Your task to perform on an android device: open sync settings in chrome Image 0: 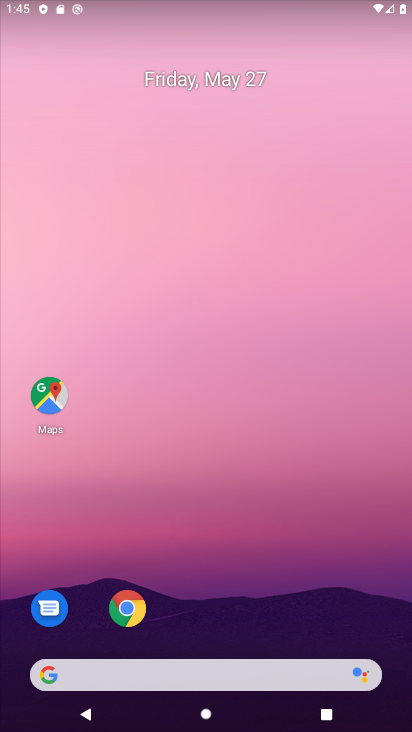
Step 0: click (129, 608)
Your task to perform on an android device: open sync settings in chrome Image 1: 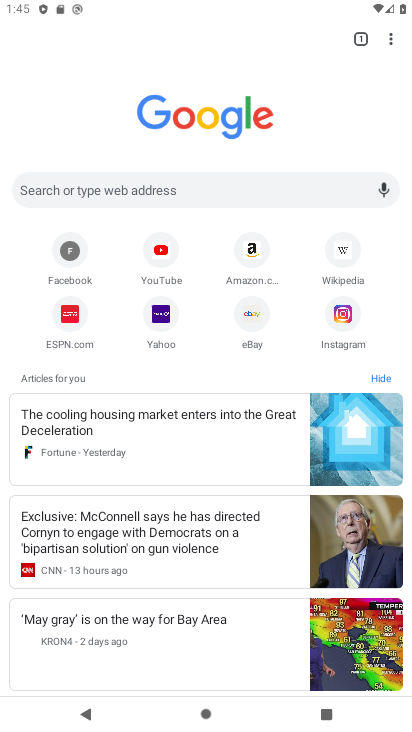
Step 1: click (387, 37)
Your task to perform on an android device: open sync settings in chrome Image 2: 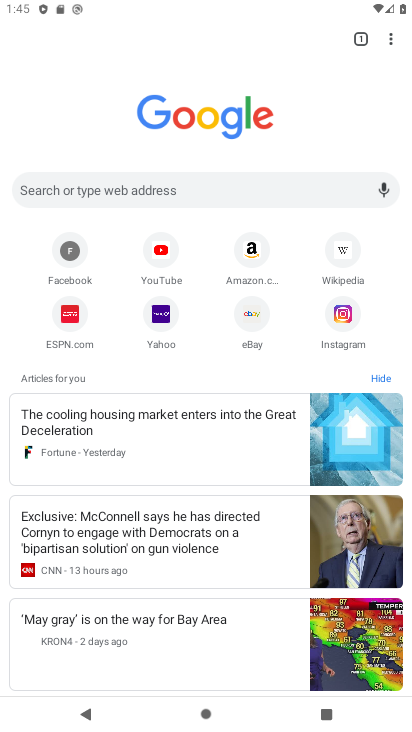
Step 2: drag from (387, 39) to (252, 333)
Your task to perform on an android device: open sync settings in chrome Image 3: 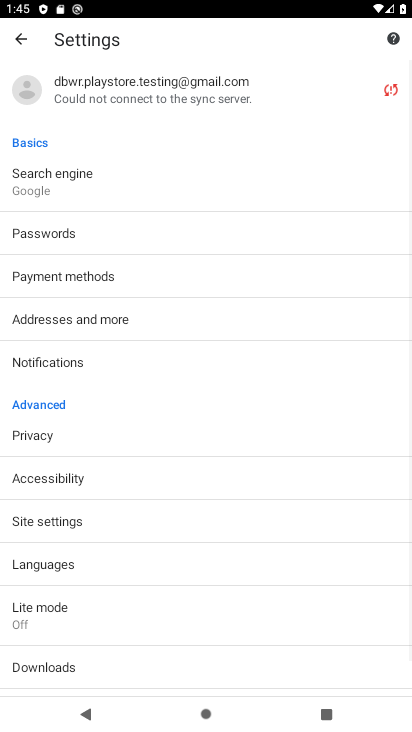
Step 3: click (123, 87)
Your task to perform on an android device: open sync settings in chrome Image 4: 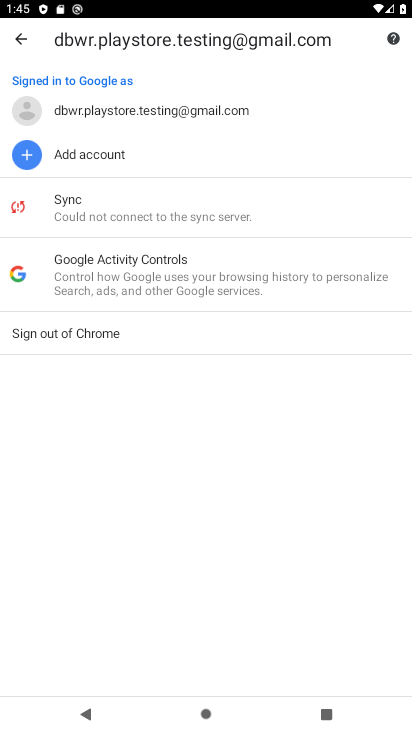
Step 4: click (142, 216)
Your task to perform on an android device: open sync settings in chrome Image 5: 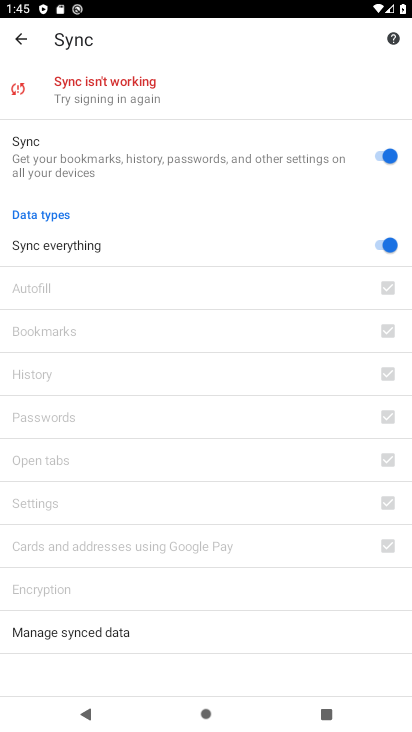
Step 5: task complete